Your task to perform on an android device: Open the calendar app, open the side menu, and click the "Day" option Image 0: 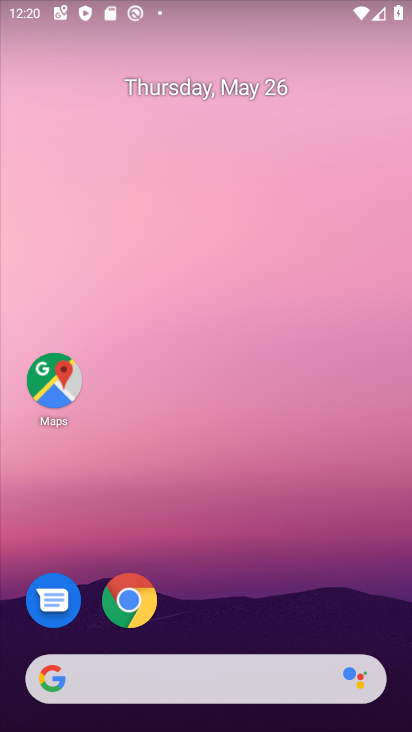
Step 0: drag from (284, 551) to (278, 100)
Your task to perform on an android device: Open the calendar app, open the side menu, and click the "Day" option Image 1: 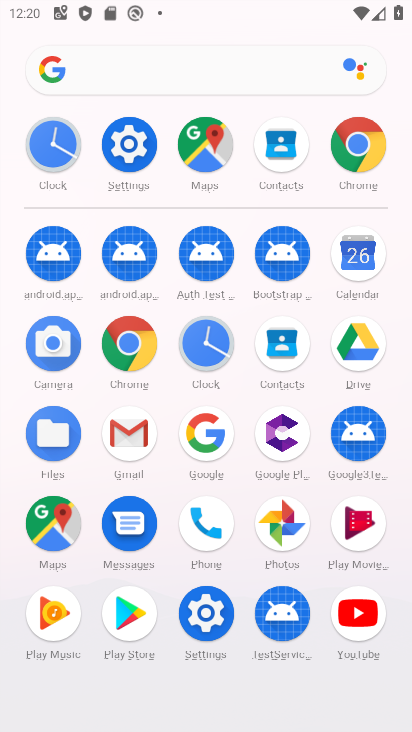
Step 1: click (359, 255)
Your task to perform on an android device: Open the calendar app, open the side menu, and click the "Day" option Image 2: 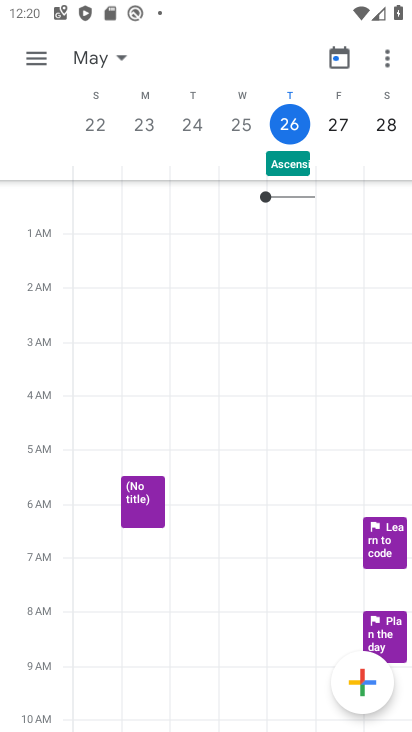
Step 2: click (30, 57)
Your task to perform on an android device: Open the calendar app, open the side menu, and click the "Day" option Image 3: 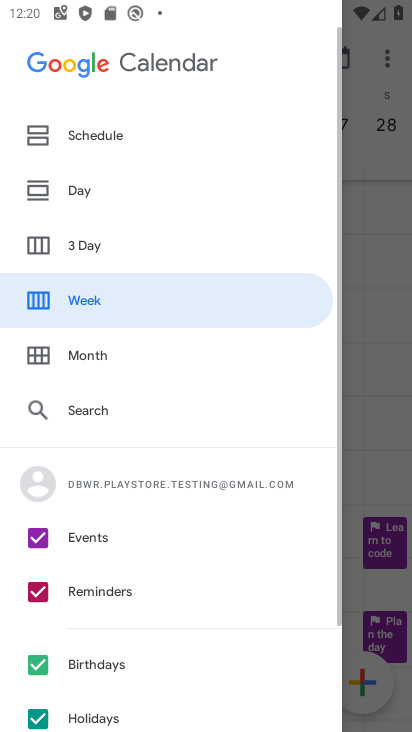
Step 3: click (115, 190)
Your task to perform on an android device: Open the calendar app, open the side menu, and click the "Day" option Image 4: 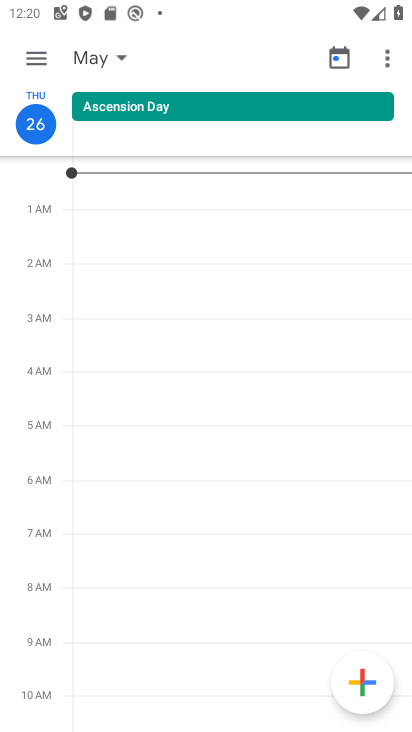
Step 4: task complete